Your task to perform on an android device: turn notification dots off Image 0: 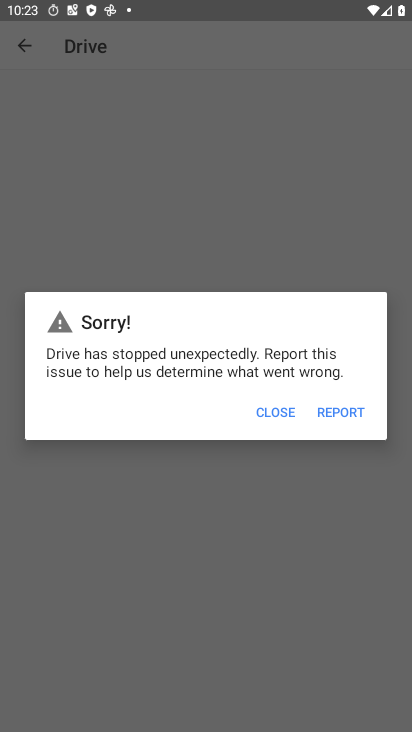
Step 0: press home button
Your task to perform on an android device: turn notification dots off Image 1: 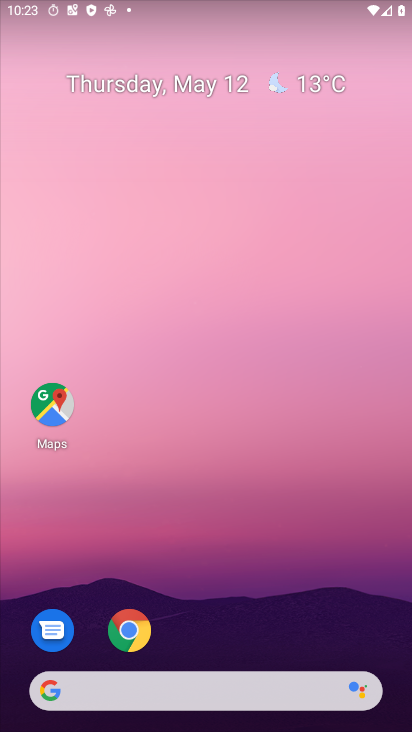
Step 1: drag from (183, 680) to (168, 198)
Your task to perform on an android device: turn notification dots off Image 2: 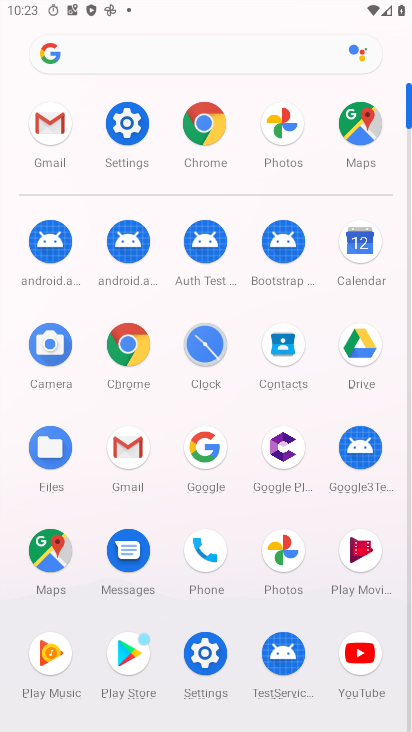
Step 2: click (205, 655)
Your task to perform on an android device: turn notification dots off Image 3: 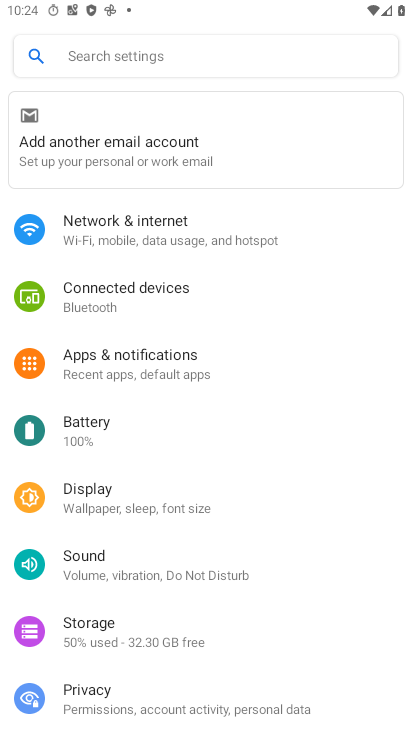
Step 3: click (138, 372)
Your task to perform on an android device: turn notification dots off Image 4: 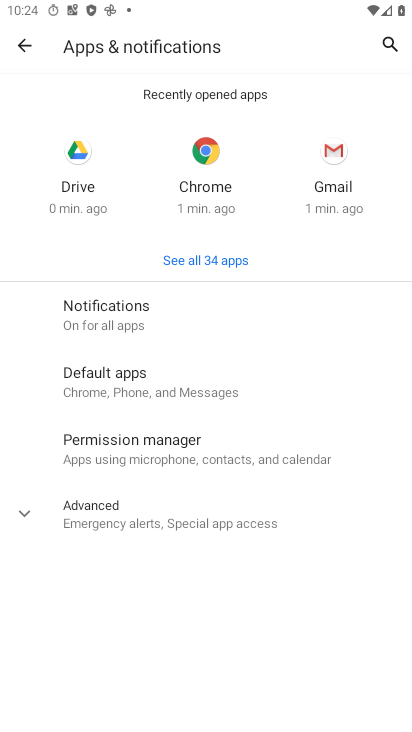
Step 4: click (61, 315)
Your task to perform on an android device: turn notification dots off Image 5: 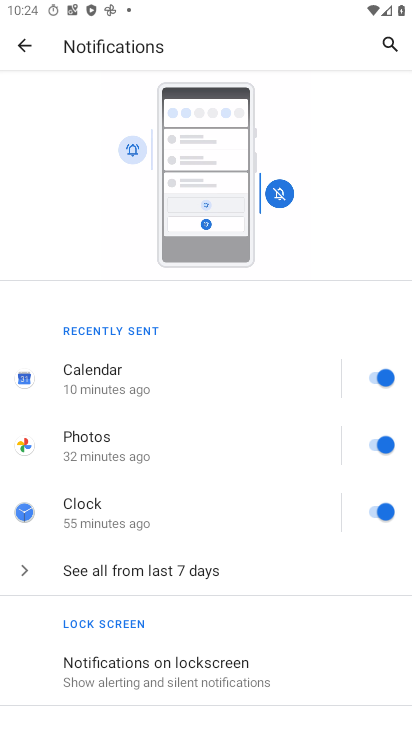
Step 5: drag from (167, 638) to (144, 263)
Your task to perform on an android device: turn notification dots off Image 6: 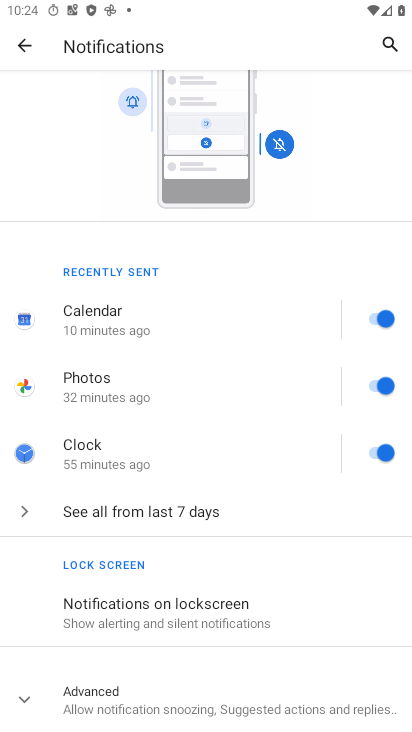
Step 6: click (89, 704)
Your task to perform on an android device: turn notification dots off Image 7: 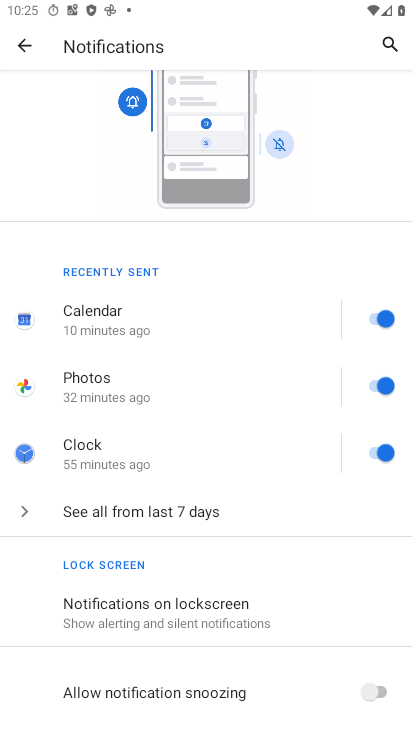
Step 7: drag from (166, 671) to (171, 275)
Your task to perform on an android device: turn notification dots off Image 8: 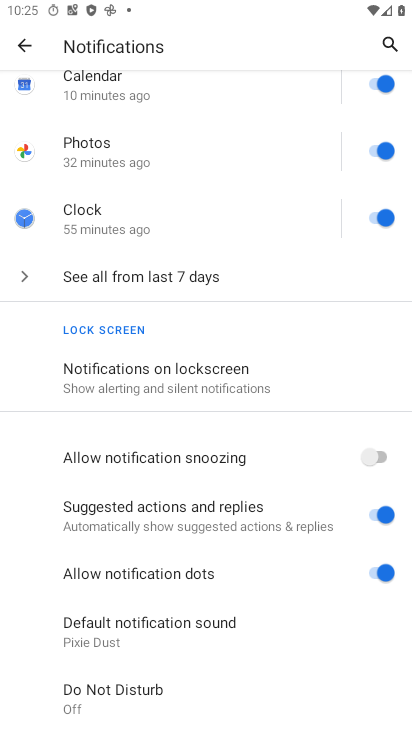
Step 8: click (369, 567)
Your task to perform on an android device: turn notification dots off Image 9: 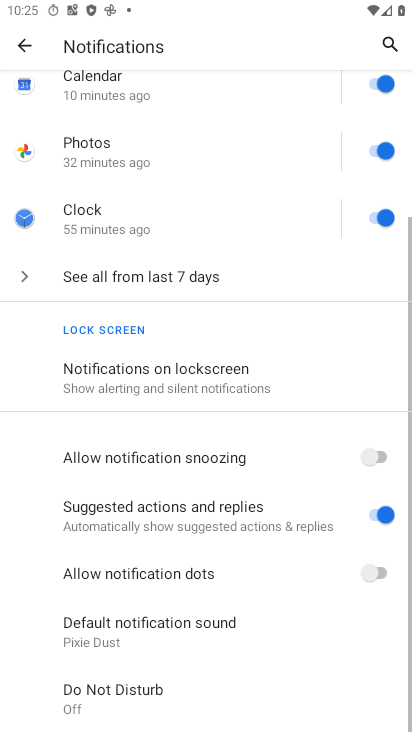
Step 9: task complete